Your task to perform on an android device: Play the last video I watched on Youtube Image 0: 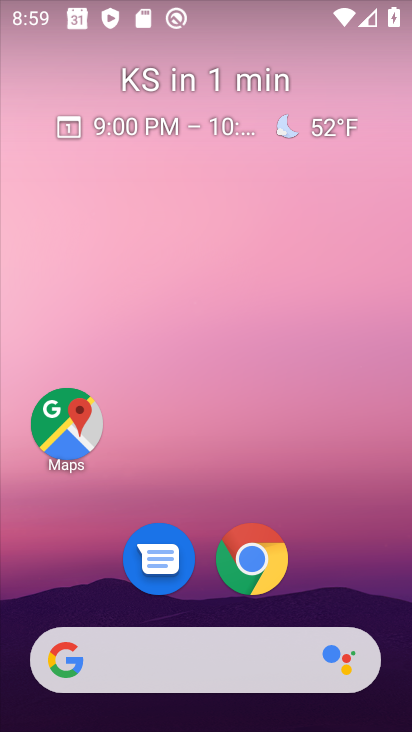
Step 0: drag from (331, 542) to (230, 22)
Your task to perform on an android device: Play the last video I watched on Youtube Image 1: 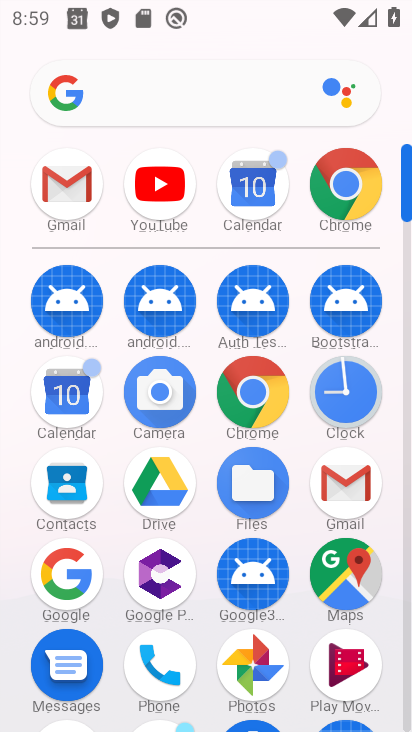
Step 1: click (153, 178)
Your task to perform on an android device: Play the last video I watched on Youtube Image 2: 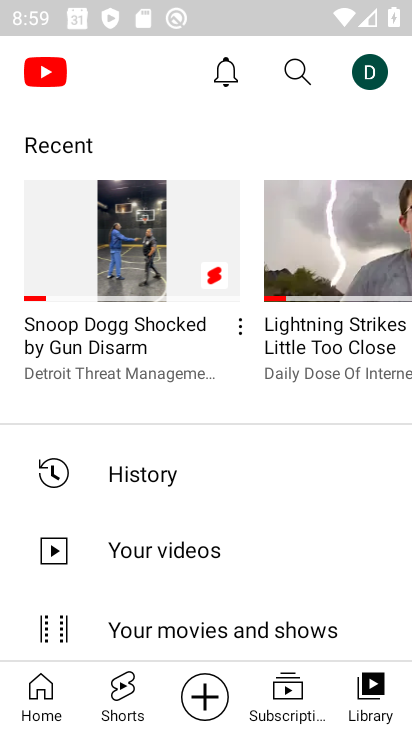
Step 2: click (371, 692)
Your task to perform on an android device: Play the last video I watched on Youtube Image 3: 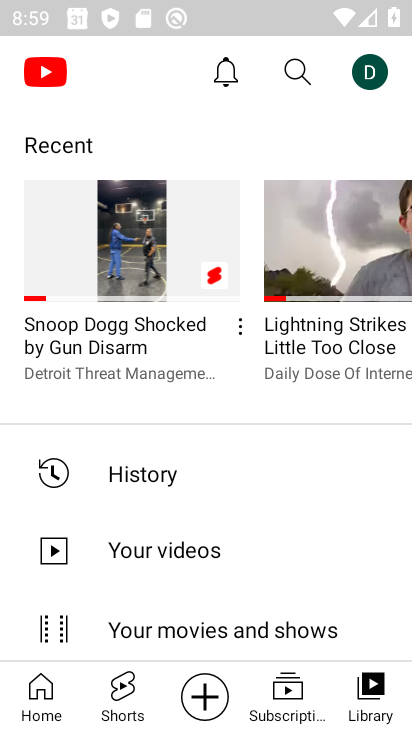
Step 3: click (78, 192)
Your task to perform on an android device: Play the last video I watched on Youtube Image 4: 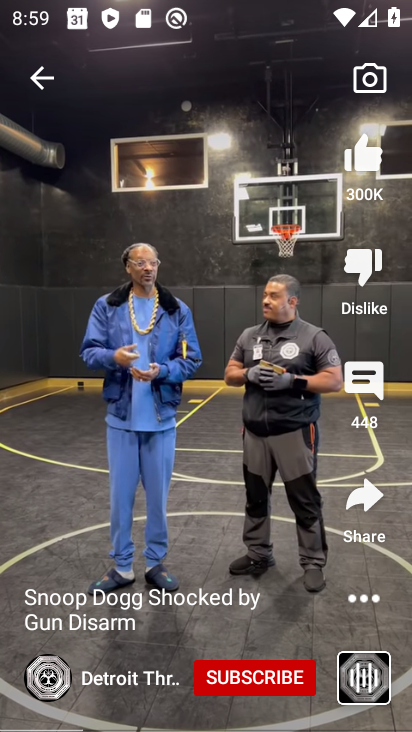
Step 4: task complete